Your task to perform on an android device: Open Google Image 0: 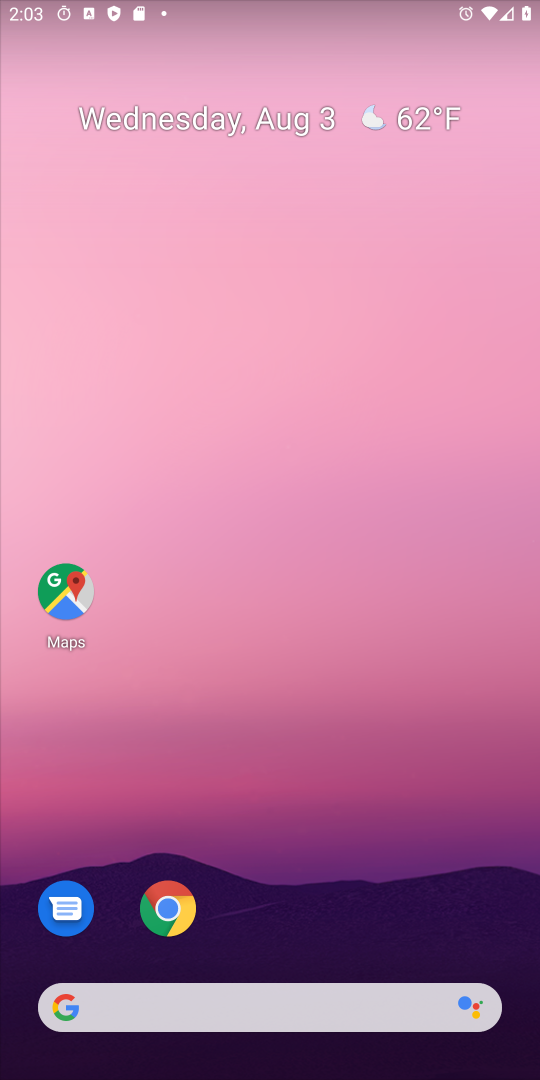
Step 0: press home button
Your task to perform on an android device: Open Google Image 1: 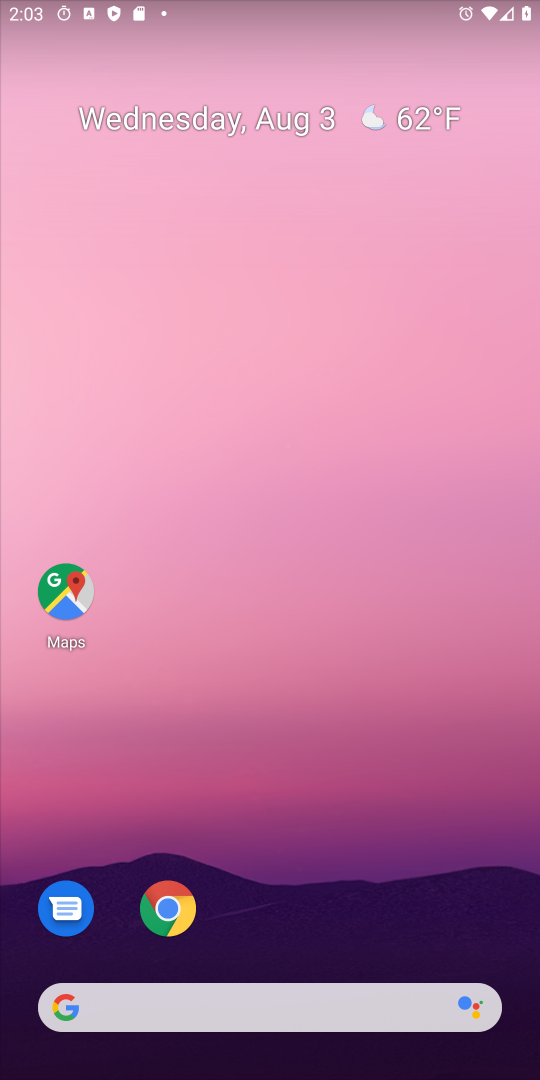
Step 1: drag from (268, 697) to (242, 222)
Your task to perform on an android device: Open Google Image 2: 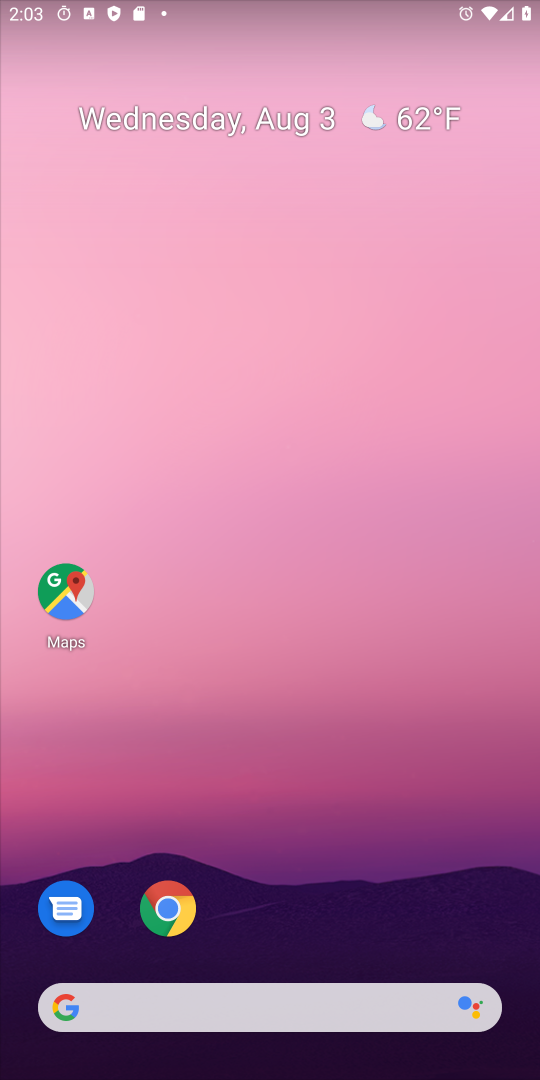
Step 2: drag from (285, 892) to (260, 131)
Your task to perform on an android device: Open Google Image 3: 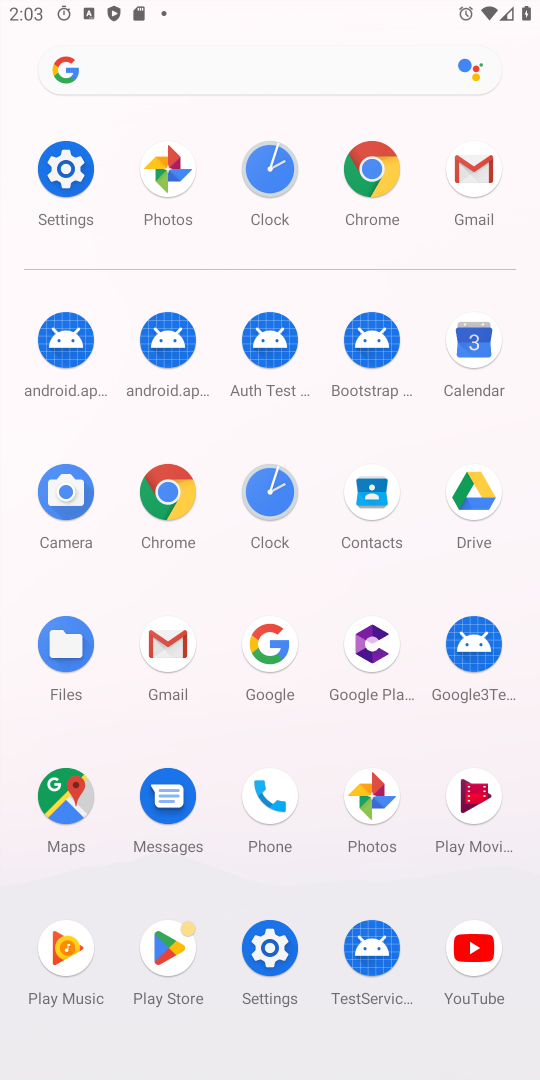
Step 3: click (274, 674)
Your task to perform on an android device: Open Google Image 4: 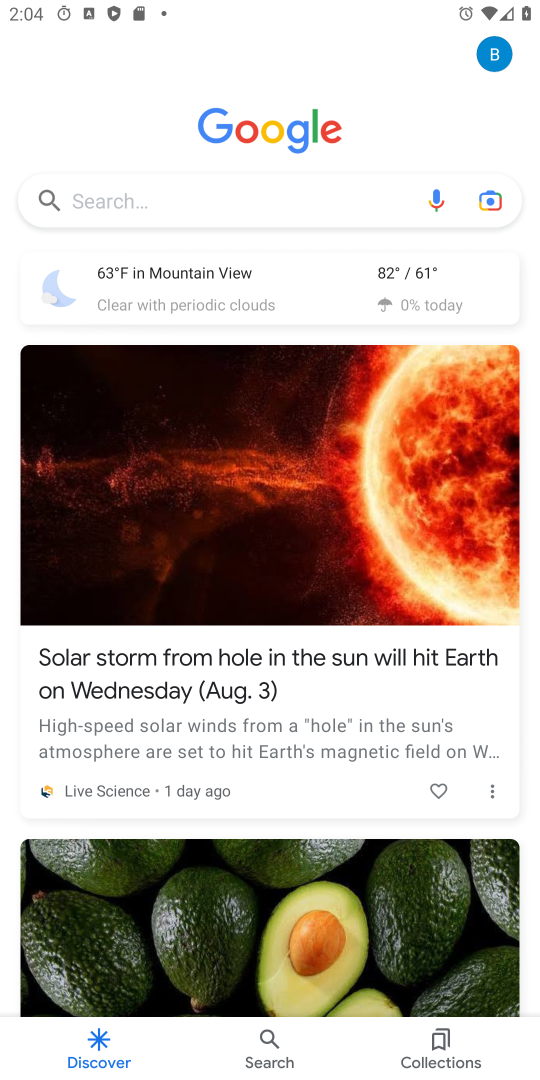
Step 4: task complete